Your task to perform on an android device: Go to Wikipedia Image 0: 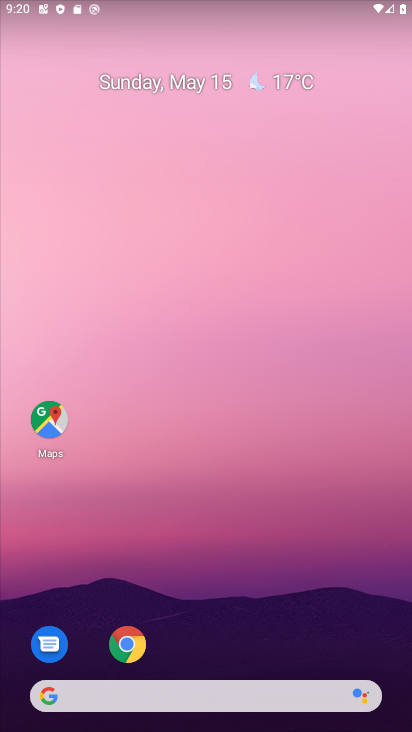
Step 0: drag from (219, 681) to (284, 169)
Your task to perform on an android device: Go to Wikipedia Image 1: 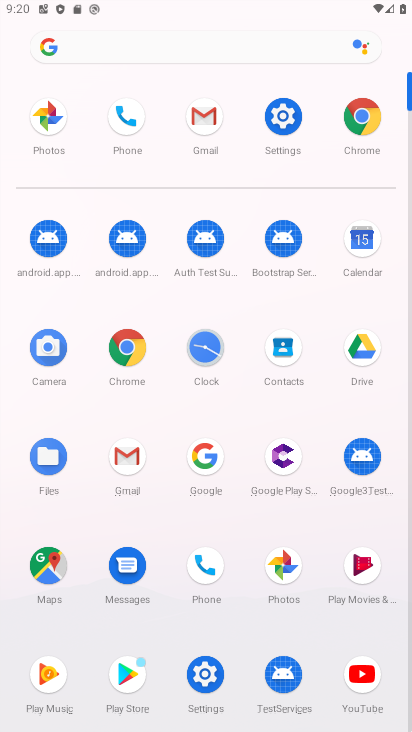
Step 1: click (351, 115)
Your task to perform on an android device: Go to Wikipedia Image 2: 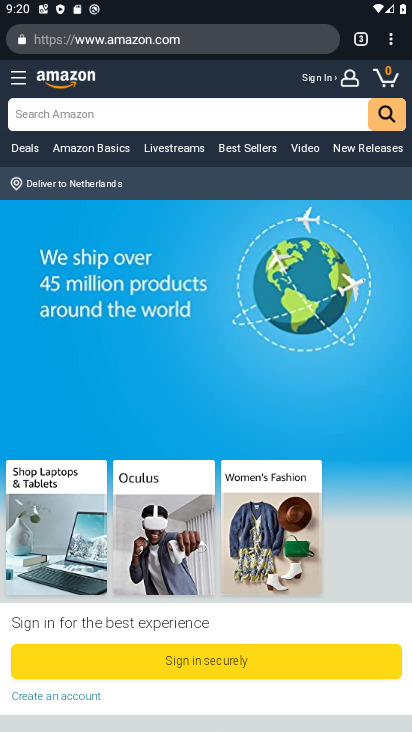
Step 2: click (382, 44)
Your task to perform on an android device: Go to Wikipedia Image 3: 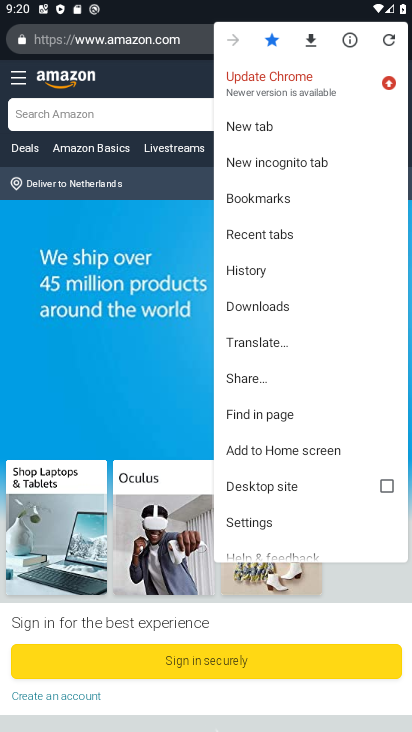
Step 3: click (270, 518)
Your task to perform on an android device: Go to Wikipedia Image 4: 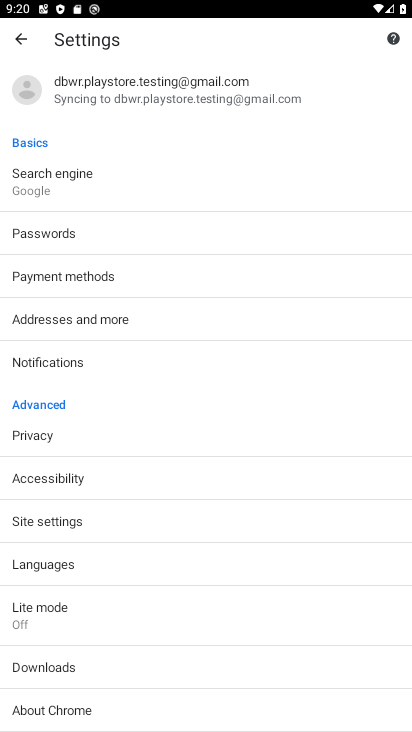
Step 4: click (34, 44)
Your task to perform on an android device: Go to Wikipedia Image 5: 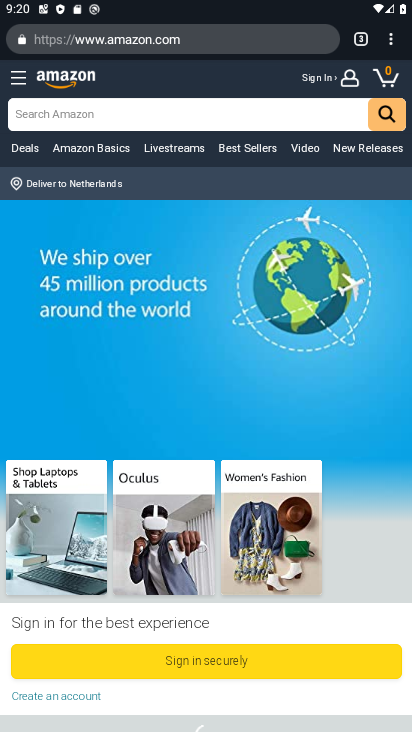
Step 5: click (359, 36)
Your task to perform on an android device: Go to Wikipedia Image 6: 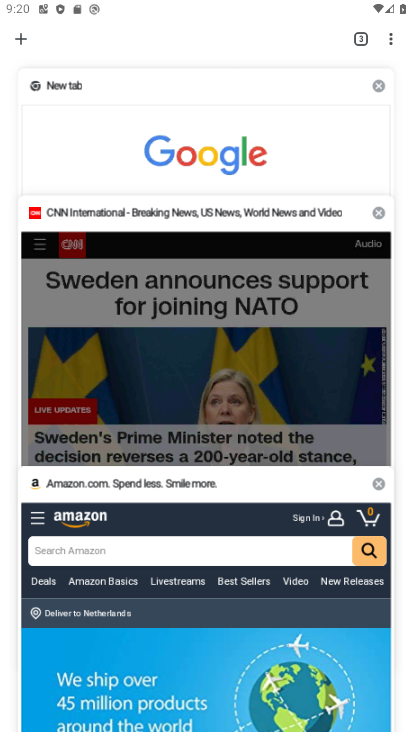
Step 6: click (30, 46)
Your task to perform on an android device: Go to Wikipedia Image 7: 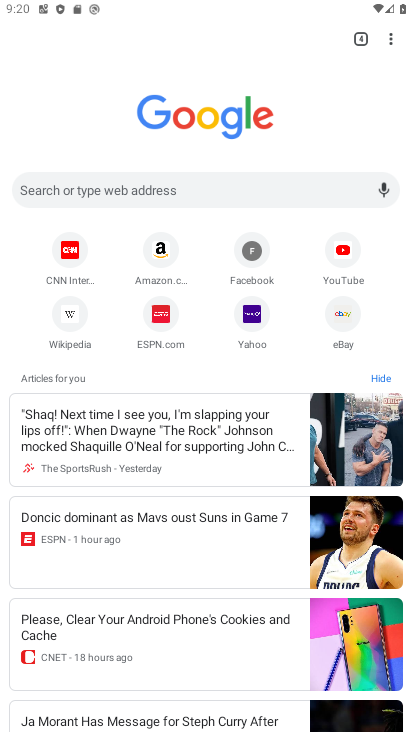
Step 7: click (79, 334)
Your task to perform on an android device: Go to Wikipedia Image 8: 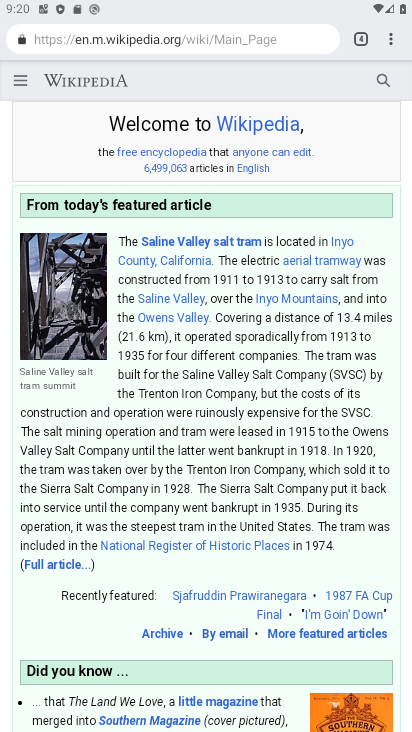
Step 8: task complete